Your task to perform on an android device: turn vacation reply on in the gmail app Image 0: 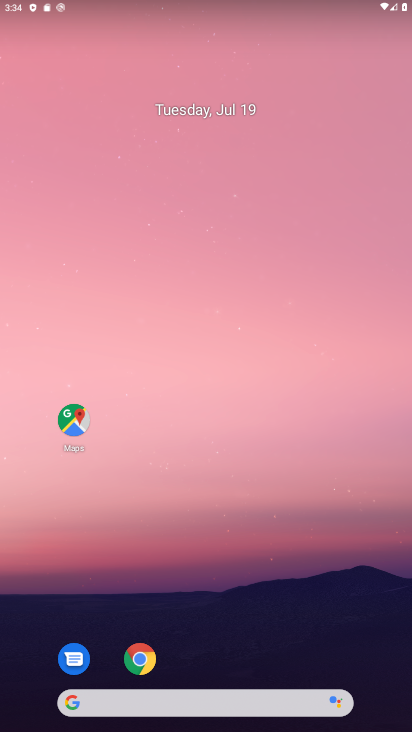
Step 0: drag from (252, 591) to (168, 2)
Your task to perform on an android device: turn vacation reply on in the gmail app Image 1: 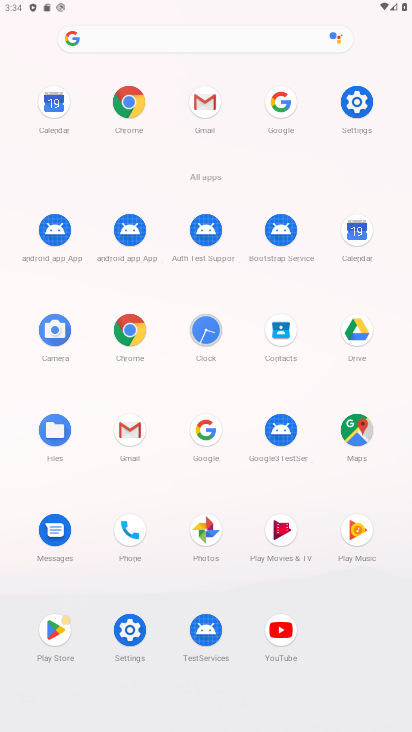
Step 1: click (205, 108)
Your task to perform on an android device: turn vacation reply on in the gmail app Image 2: 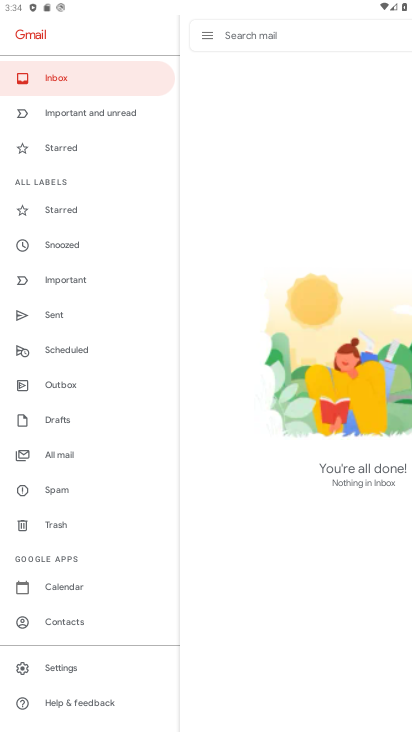
Step 2: drag from (103, 634) to (80, 87)
Your task to perform on an android device: turn vacation reply on in the gmail app Image 3: 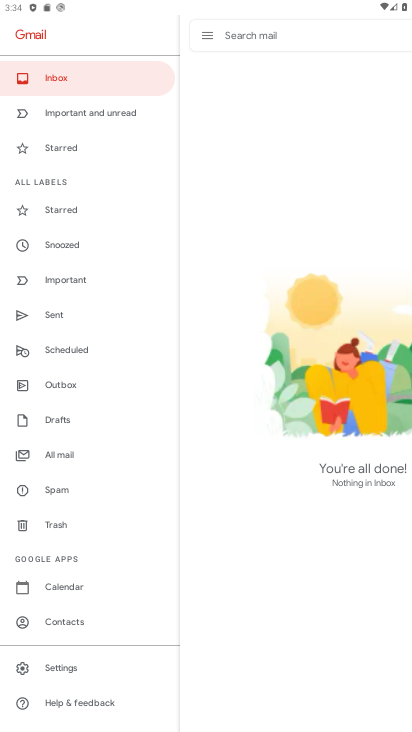
Step 3: click (61, 666)
Your task to perform on an android device: turn vacation reply on in the gmail app Image 4: 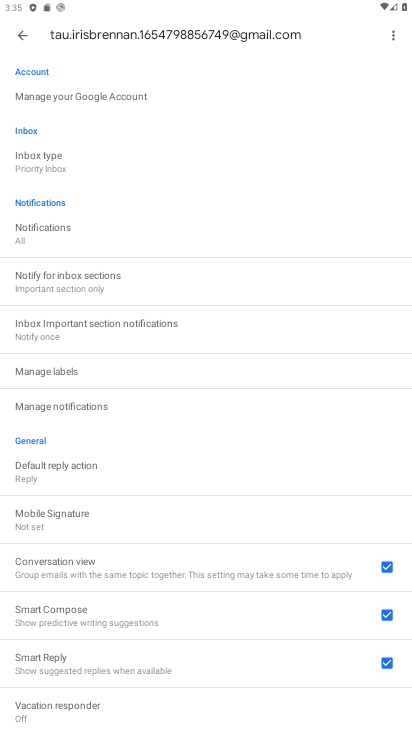
Step 4: drag from (122, 587) to (71, 111)
Your task to perform on an android device: turn vacation reply on in the gmail app Image 5: 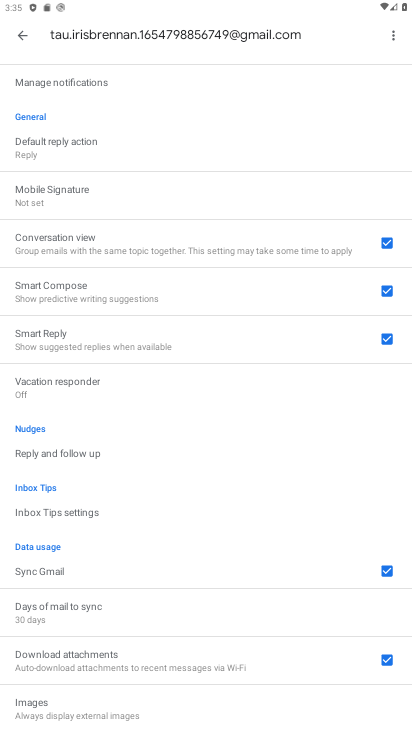
Step 5: drag from (136, 700) to (193, 201)
Your task to perform on an android device: turn vacation reply on in the gmail app Image 6: 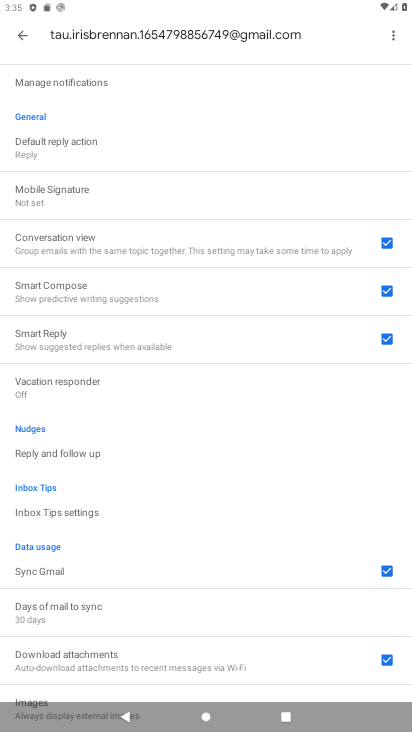
Step 6: drag from (202, 275) to (198, 214)
Your task to perform on an android device: turn vacation reply on in the gmail app Image 7: 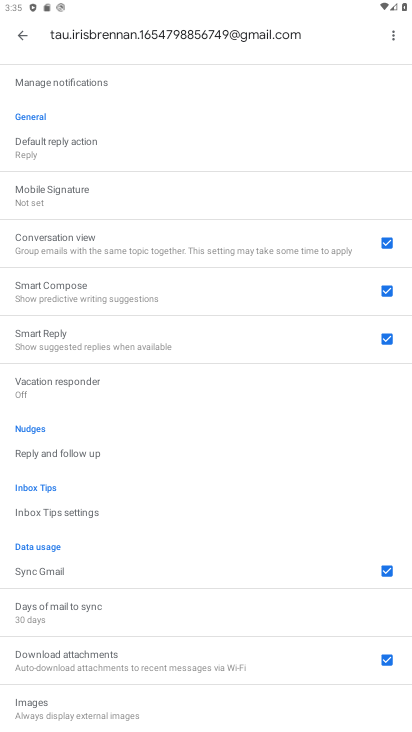
Step 7: drag from (142, 274) to (183, 702)
Your task to perform on an android device: turn vacation reply on in the gmail app Image 8: 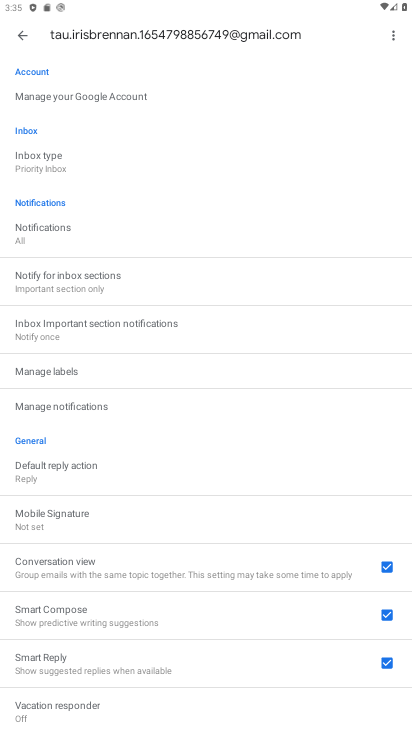
Step 8: drag from (172, 679) to (176, 328)
Your task to perform on an android device: turn vacation reply on in the gmail app Image 9: 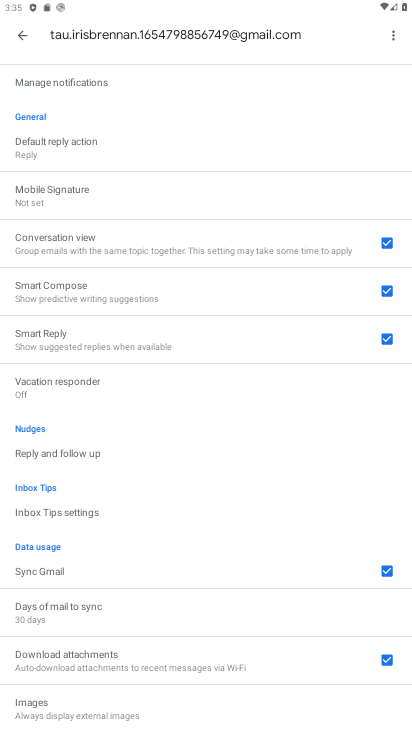
Step 9: click (50, 387)
Your task to perform on an android device: turn vacation reply on in the gmail app Image 10: 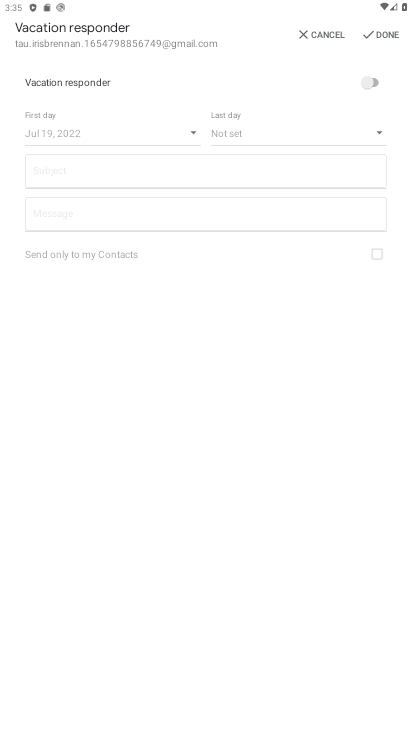
Step 10: click (367, 89)
Your task to perform on an android device: turn vacation reply on in the gmail app Image 11: 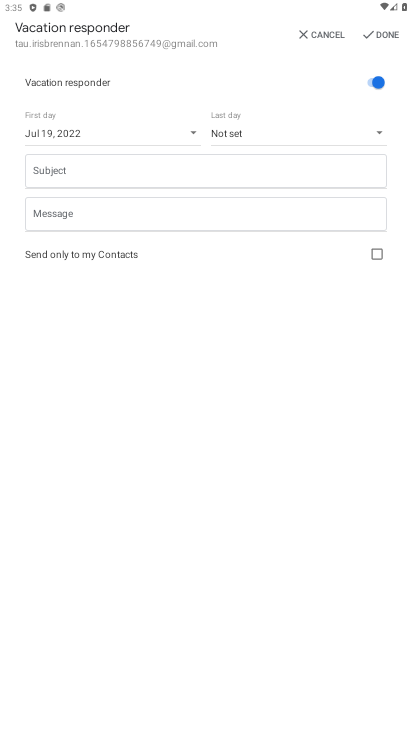
Step 11: task complete